Your task to perform on an android device: open app "Nova Launcher" (install if not already installed) Image 0: 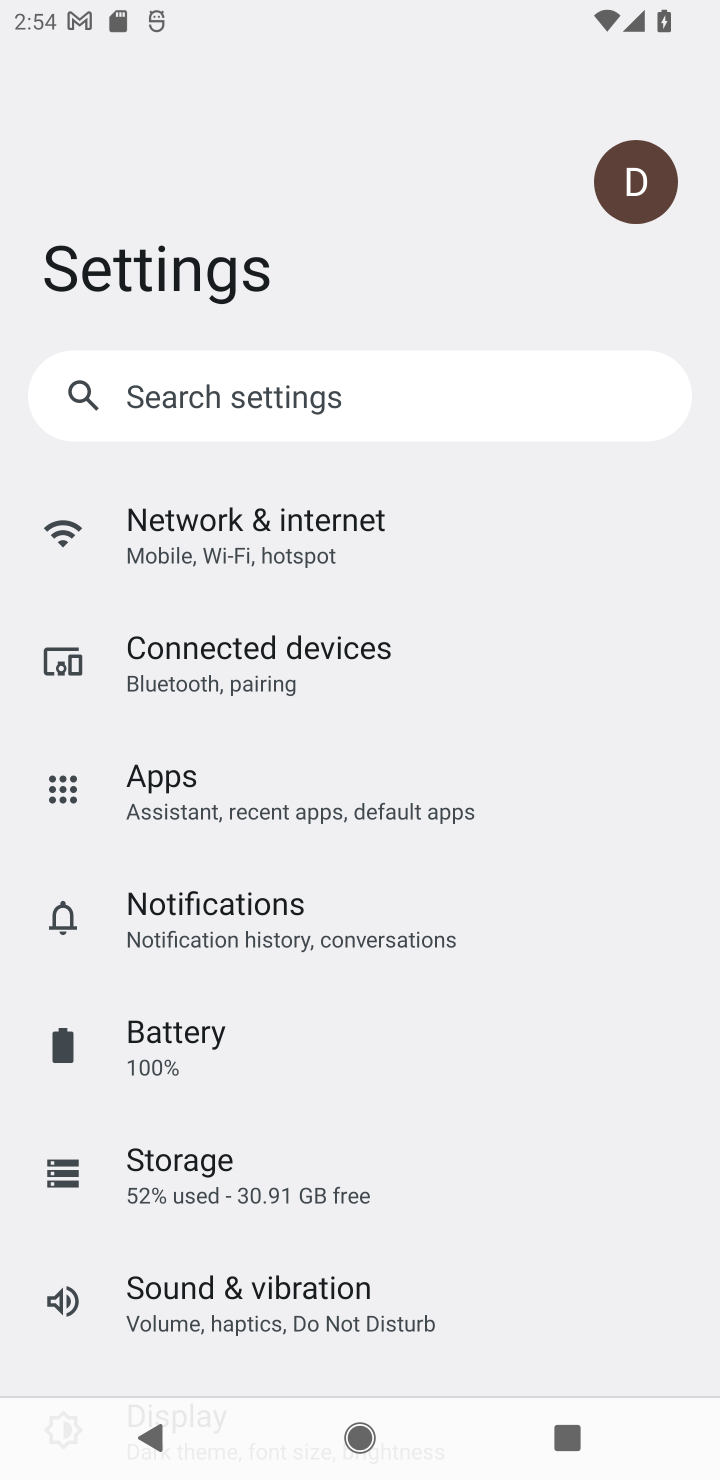
Step 0: press home button
Your task to perform on an android device: open app "Nova Launcher" (install if not already installed) Image 1: 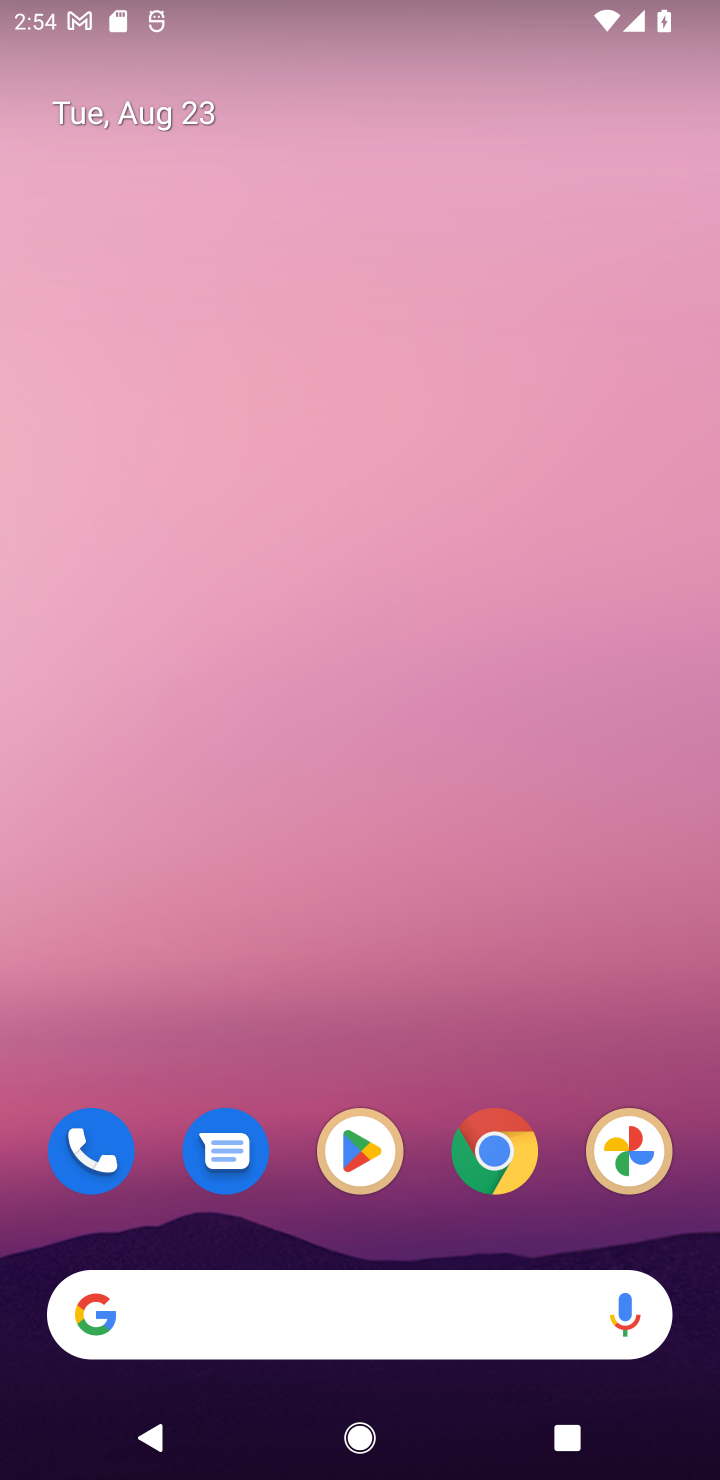
Step 1: click (376, 1157)
Your task to perform on an android device: open app "Nova Launcher" (install if not already installed) Image 2: 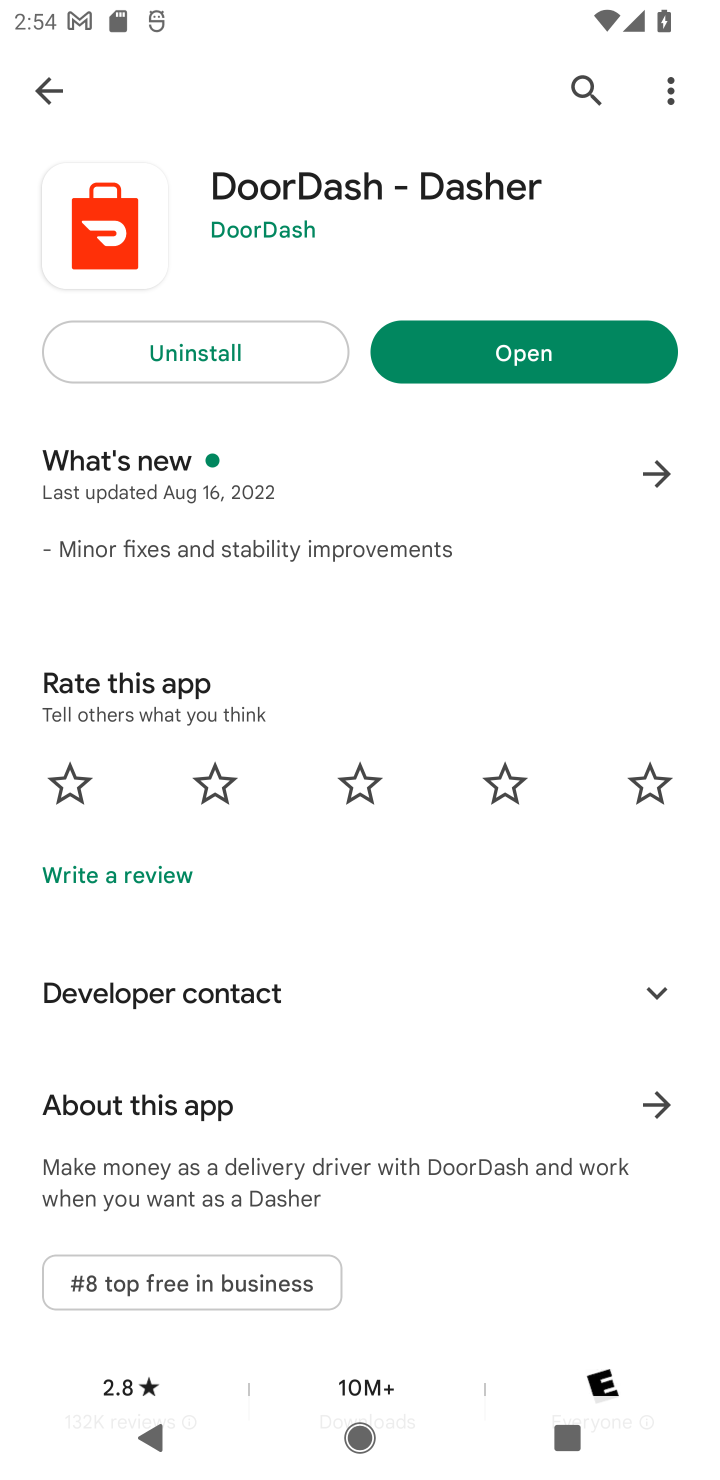
Step 2: click (582, 85)
Your task to perform on an android device: open app "Nova Launcher" (install if not already installed) Image 3: 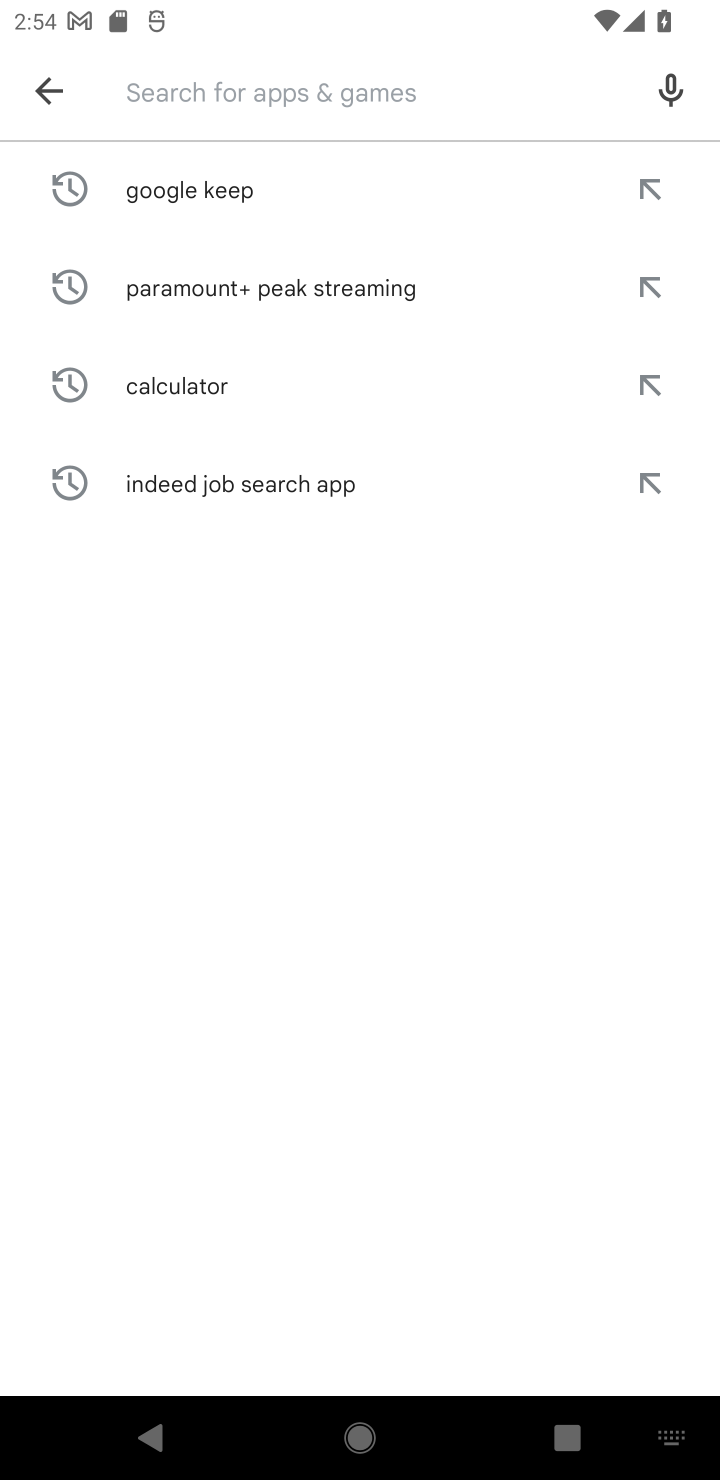
Step 3: type "Nova Launcher"
Your task to perform on an android device: open app "Nova Launcher" (install if not already installed) Image 4: 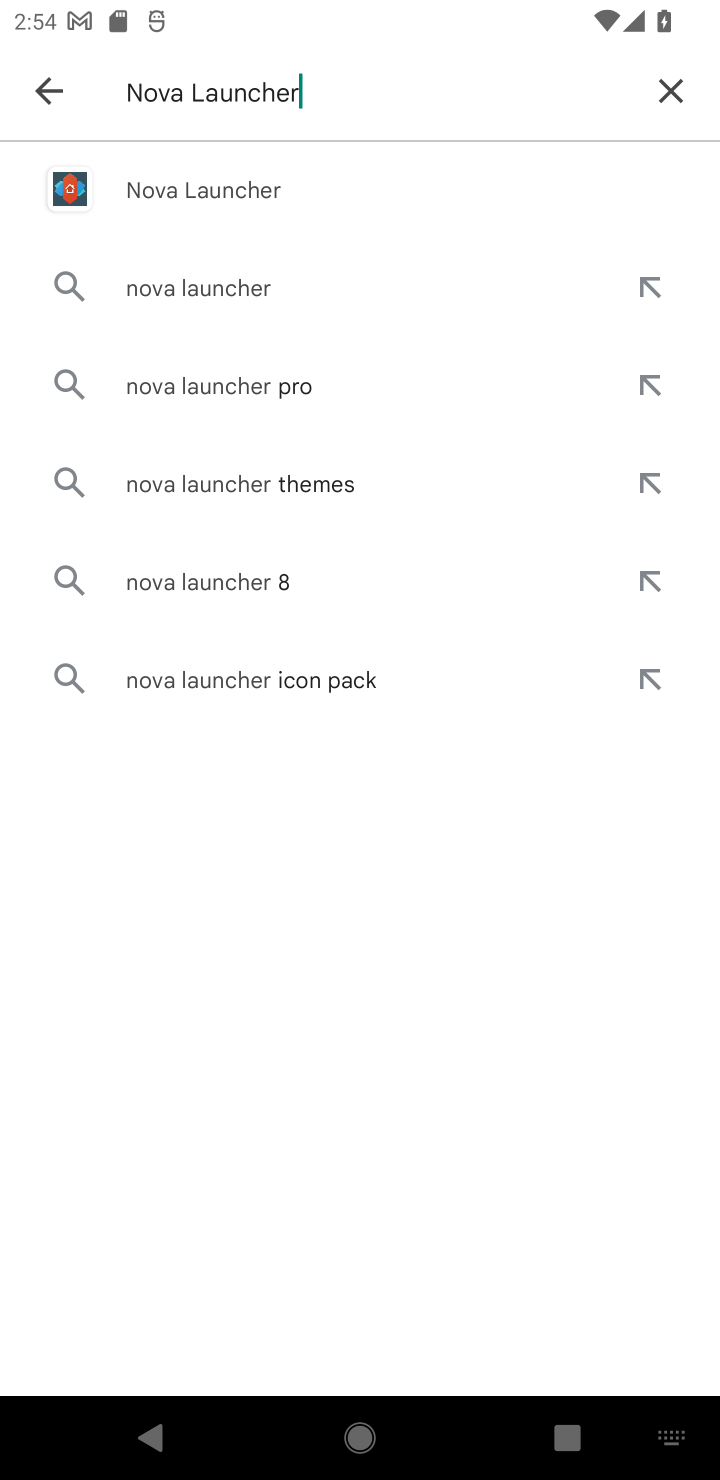
Step 4: click (242, 196)
Your task to perform on an android device: open app "Nova Launcher" (install if not already installed) Image 5: 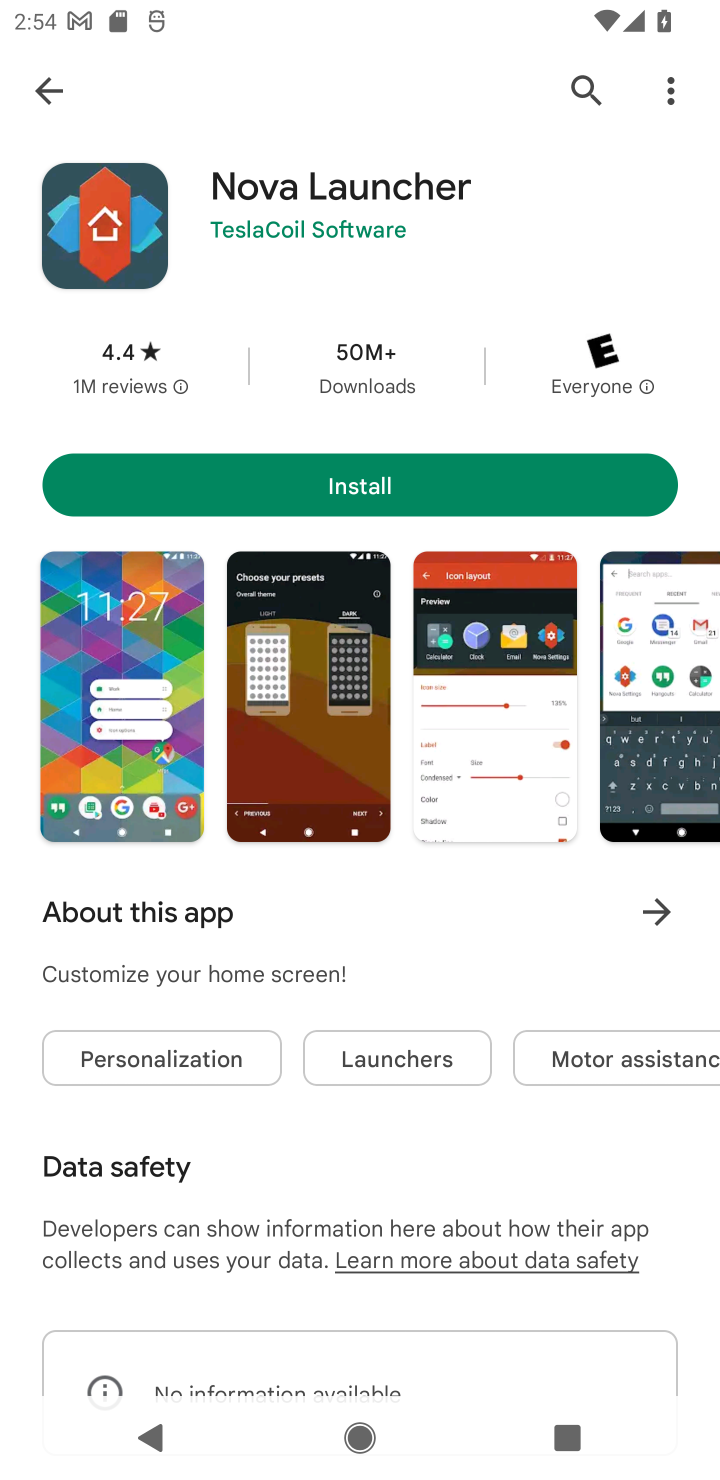
Step 5: click (369, 477)
Your task to perform on an android device: open app "Nova Launcher" (install if not already installed) Image 6: 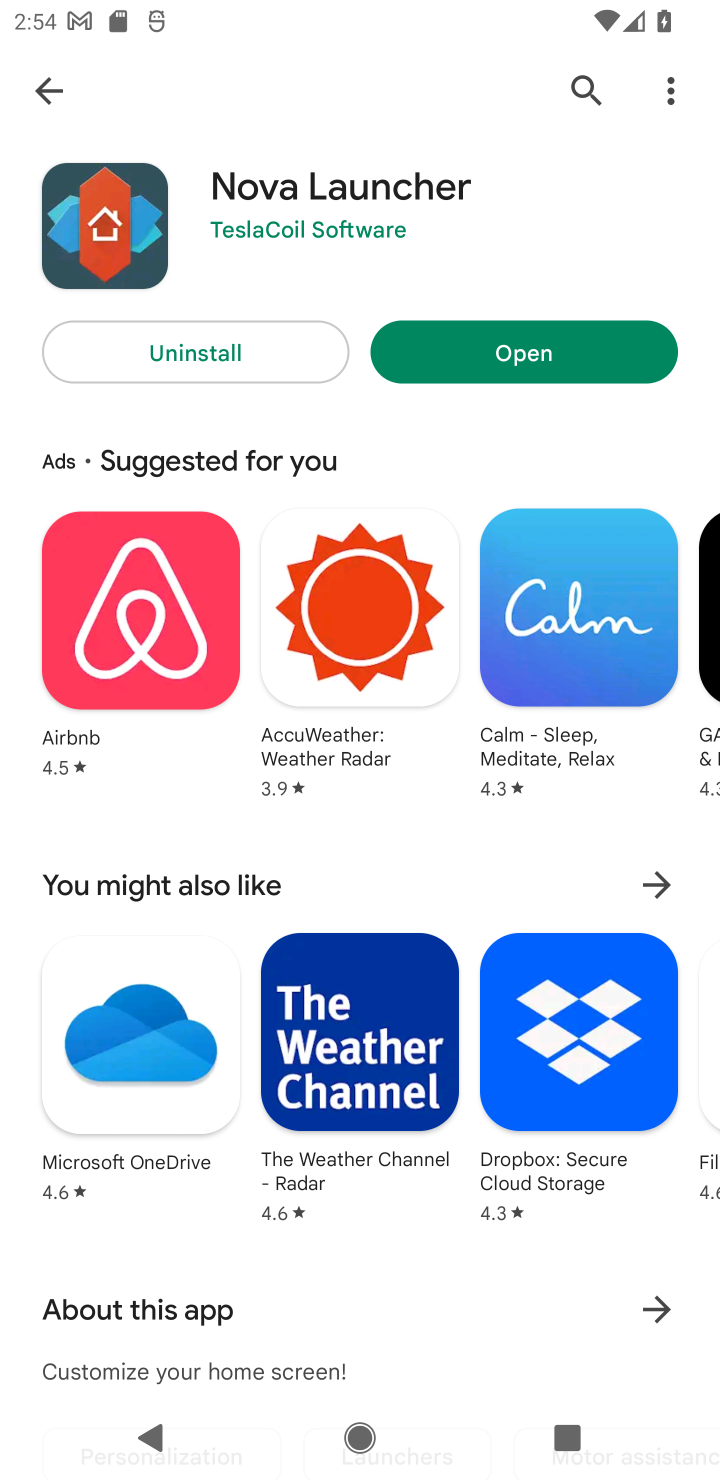
Step 6: click (574, 352)
Your task to perform on an android device: open app "Nova Launcher" (install if not already installed) Image 7: 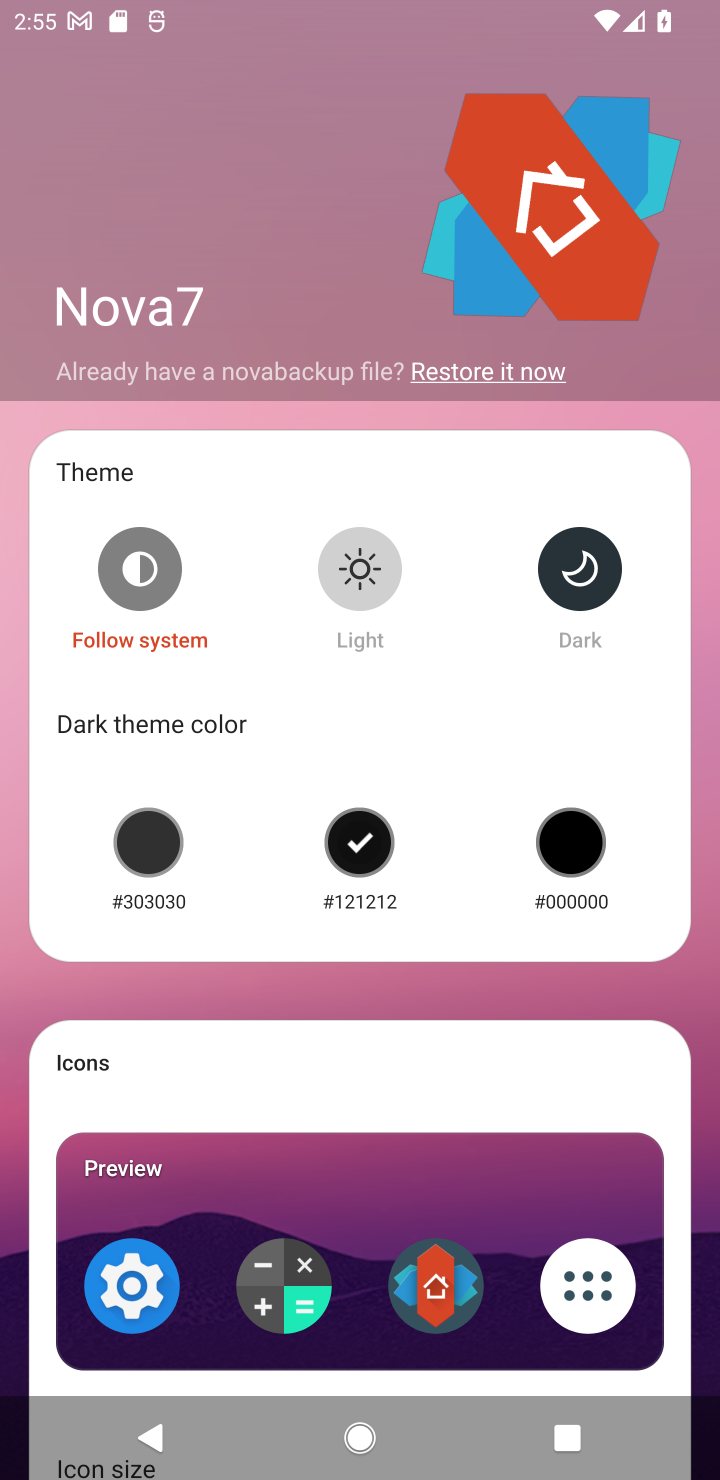
Step 7: task complete